Your task to perform on an android device: turn off javascript in the chrome app Image 0: 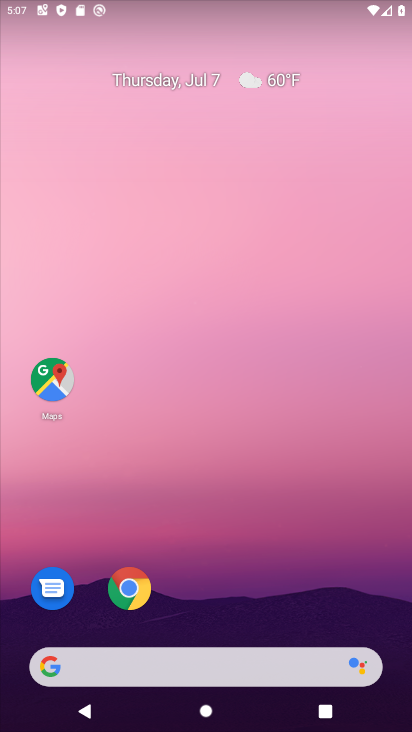
Step 0: click (131, 598)
Your task to perform on an android device: turn off javascript in the chrome app Image 1: 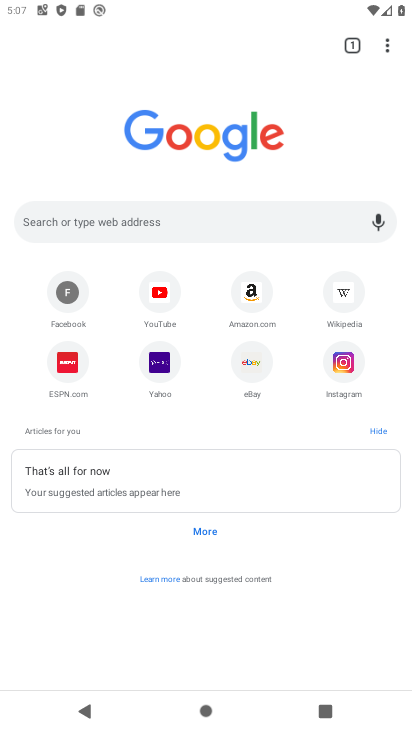
Step 1: drag from (388, 42) to (214, 389)
Your task to perform on an android device: turn off javascript in the chrome app Image 2: 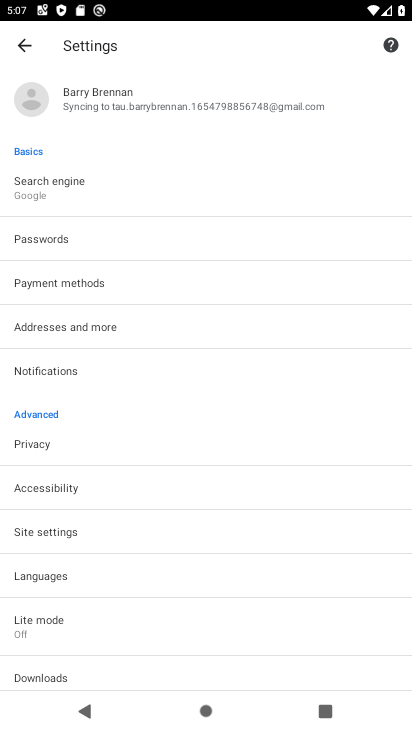
Step 2: click (58, 533)
Your task to perform on an android device: turn off javascript in the chrome app Image 3: 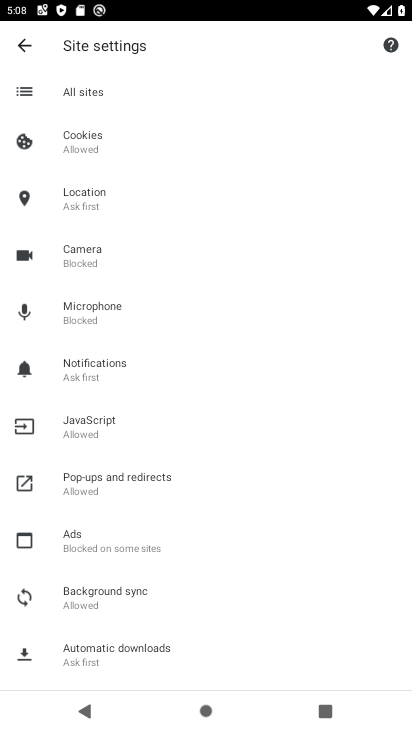
Step 3: click (62, 432)
Your task to perform on an android device: turn off javascript in the chrome app Image 4: 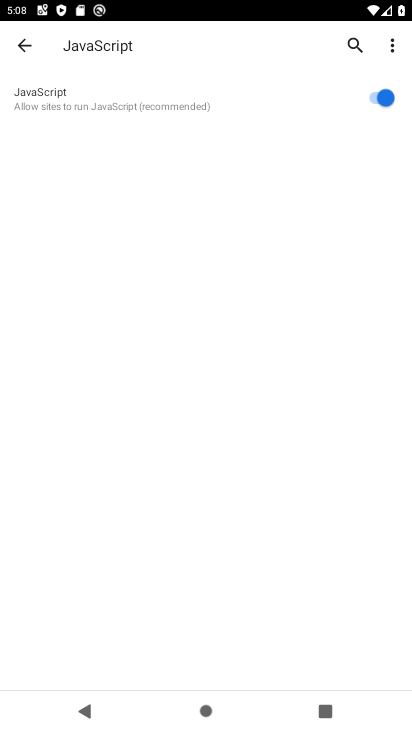
Step 4: click (394, 100)
Your task to perform on an android device: turn off javascript in the chrome app Image 5: 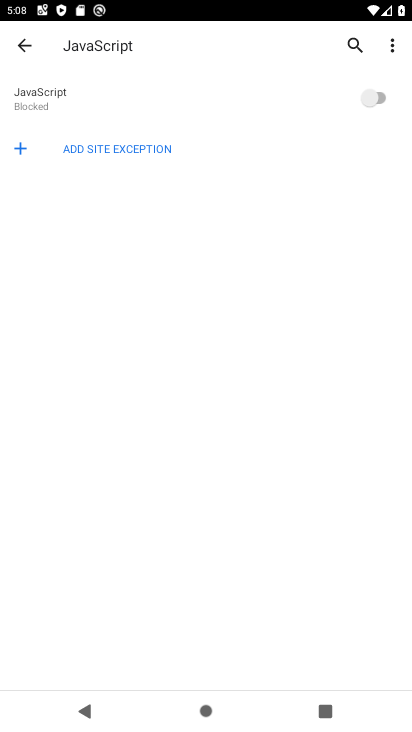
Step 5: task complete